Your task to perform on an android device: delete the emails in spam in the gmail app Image 0: 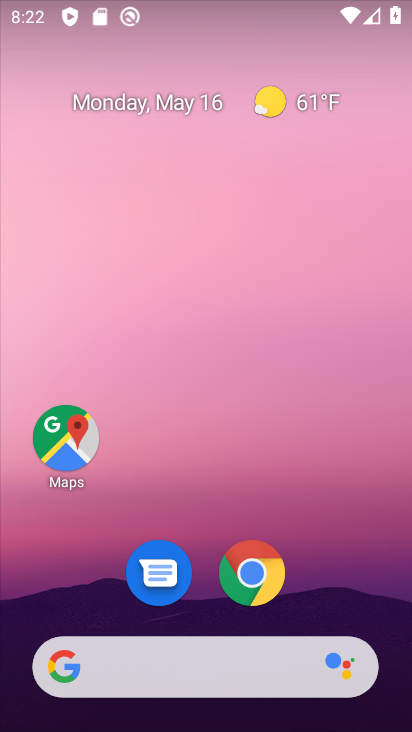
Step 0: drag from (192, 723) to (195, 190)
Your task to perform on an android device: delete the emails in spam in the gmail app Image 1: 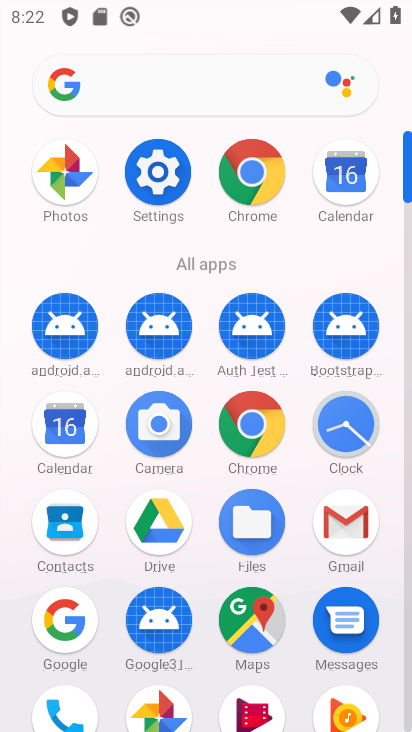
Step 1: click (333, 525)
Your task to perform on an android device: delete the emails in spam in the gmail app Image 2: 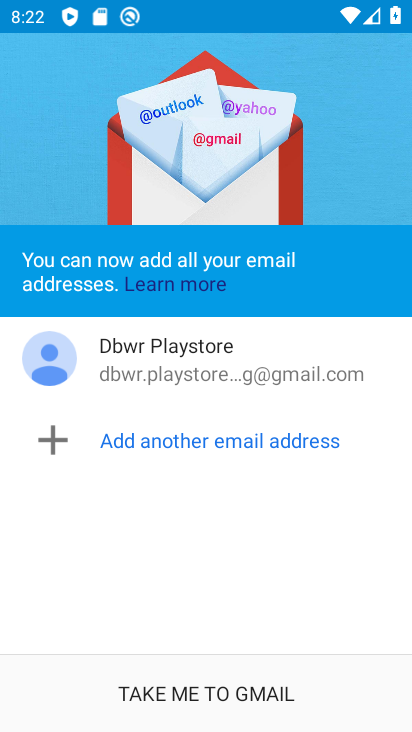
Step 2: click (218, 686)
Your task to perform on an android device: delete the emails in spam in the gmail app Image 3: 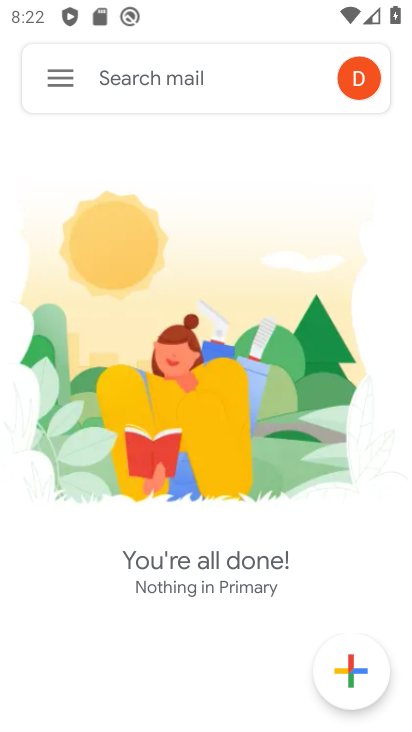
Step 3: click (60, 71)
Your task to perform on an android device: delete the emails in spam in the gmail app Image 4: 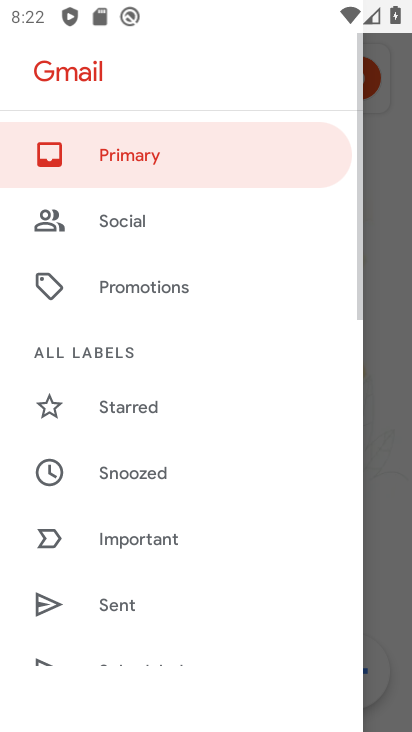
Step 4: drag from (146, 146) to (141, 425)
Your task to perform on an android device: delete the emails in spam in the gmail app Image 5: 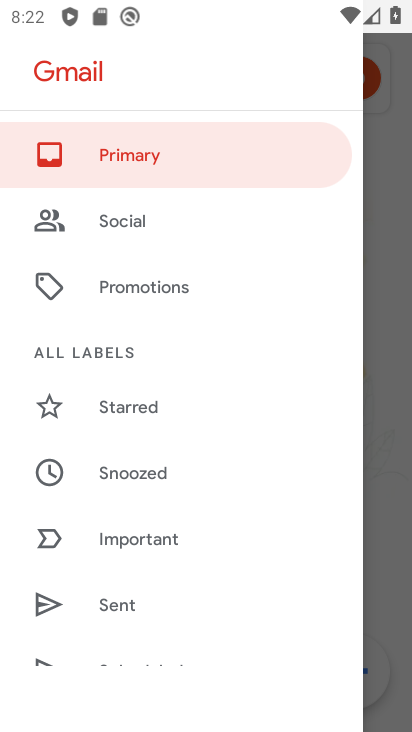
Step 5: click (372, 138)
Your task to perform on an android device: delete the emails in spam in the gmail app Image 6: 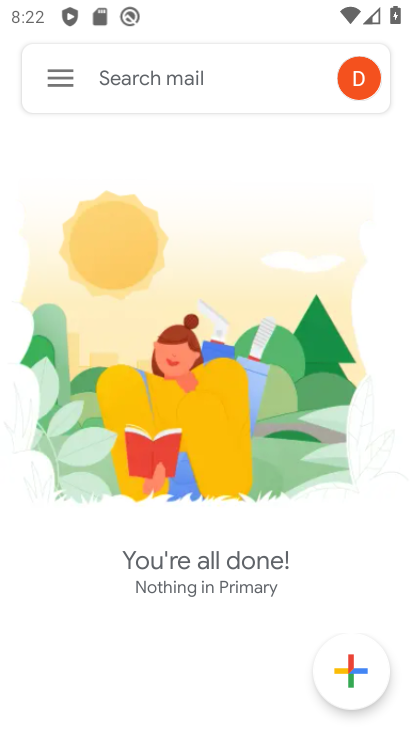
Step 6: task complete